Your task to perform on an android device: Go to ESPN.com Image 0: 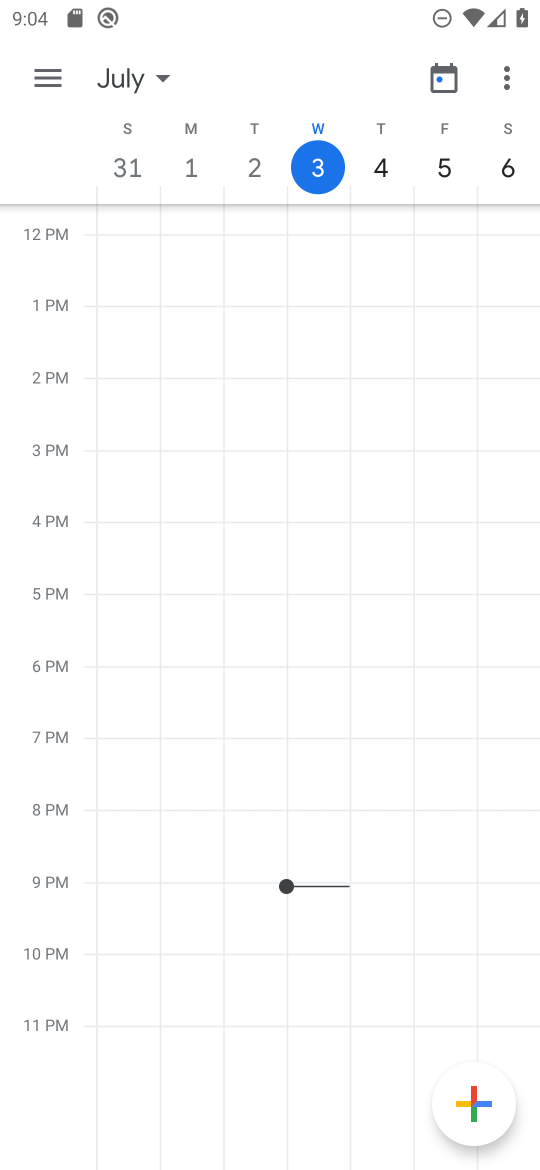
Step 0: press home button
Your task to perform on an android device: Go to ESPN.com Image 1: 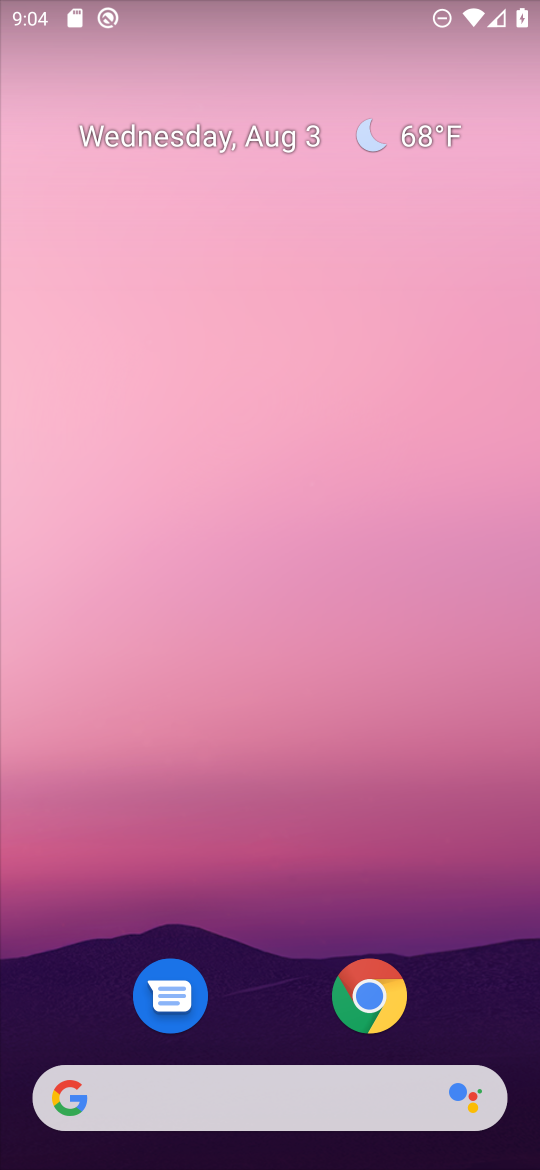
Step 1: click (295, 1098)
Your task to perform on an android device: Go to ESPN.com Image 2: 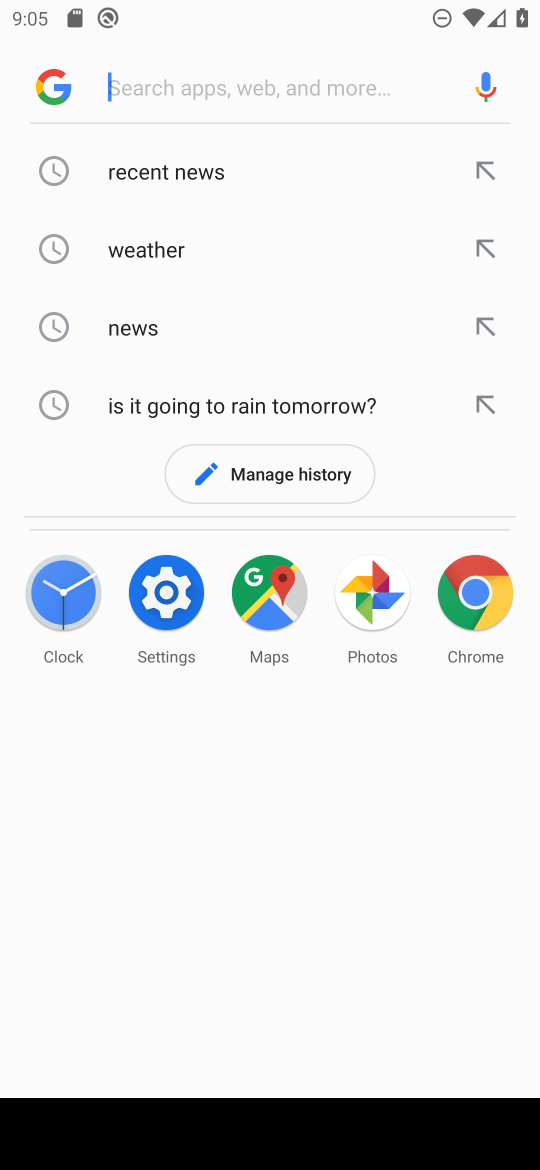
Step 2: type "espn.com"
Your task to perform on an android device: Go to ESPN.com Image 3: 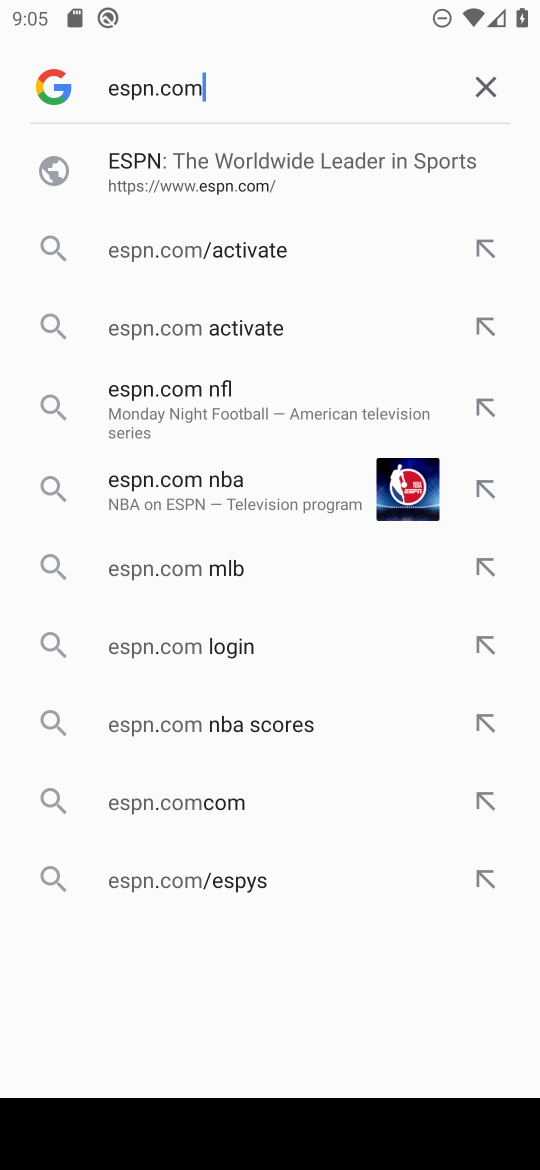
Step 3: click (319, 180)
Your task to perform on an android device: Go to ESPN.com Image 4: 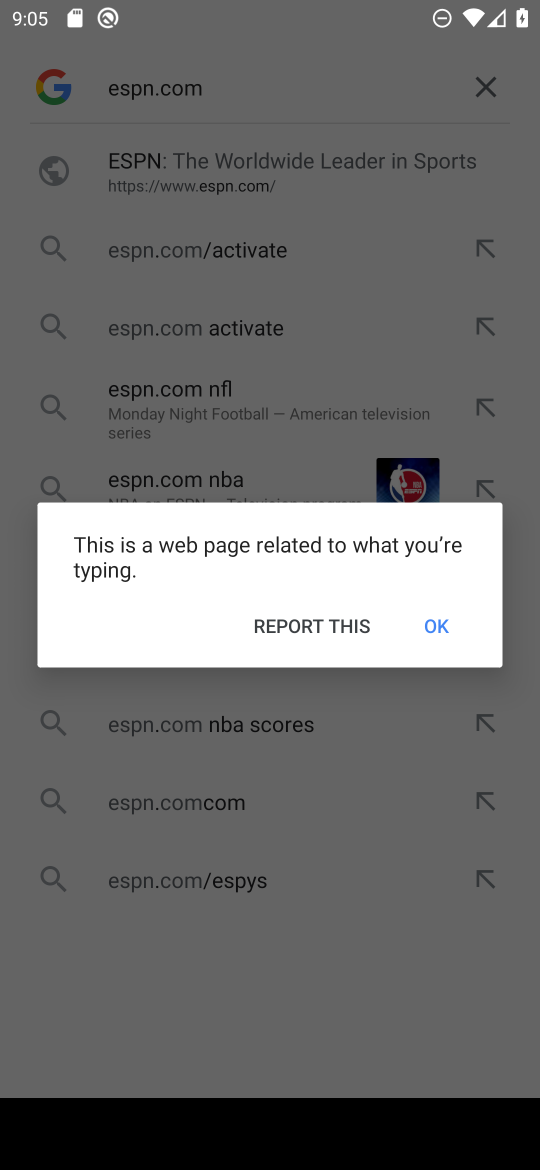
Step 4: click (443, 629)
Your task to perform on an android device: Go to ESPN.com Image 5: 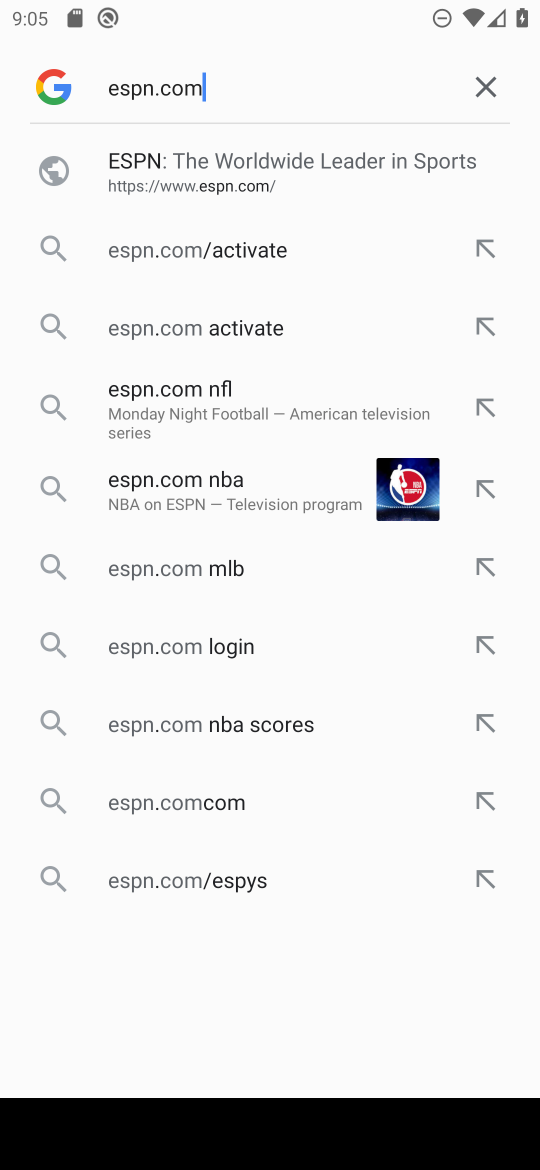
Step 5: click (330, 178)
Your task to perform on an android device: Go to ESPN.com Image 6: 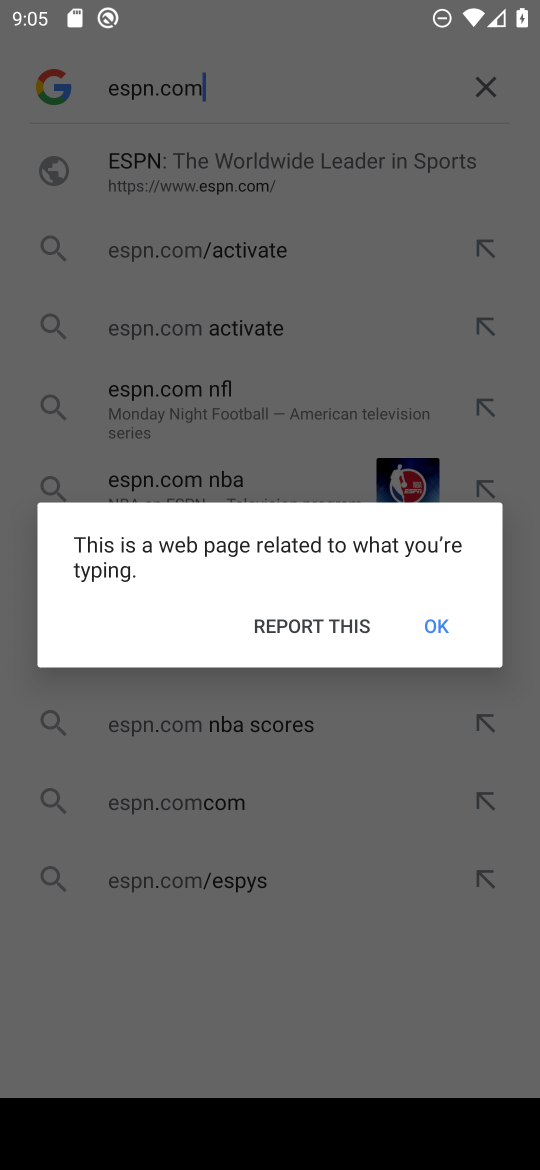
Step 6: click (436, 622)
Your task to perform on an android device: Go to ESPN.com Image 7: 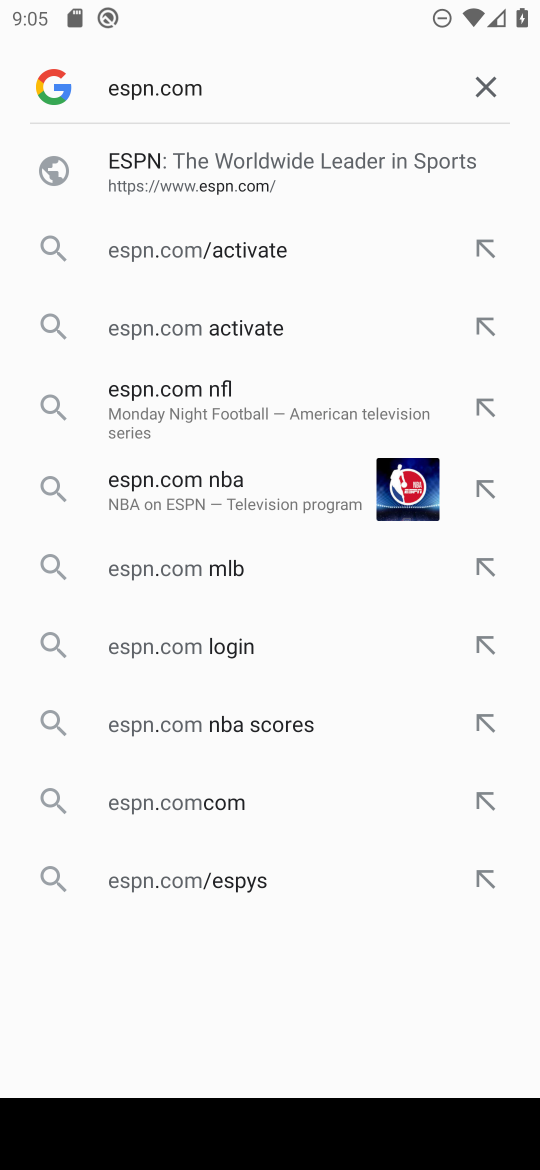
Step 7: click (50, 169)
Your task to perform on an android device: Go to ESPN.com Image 8: 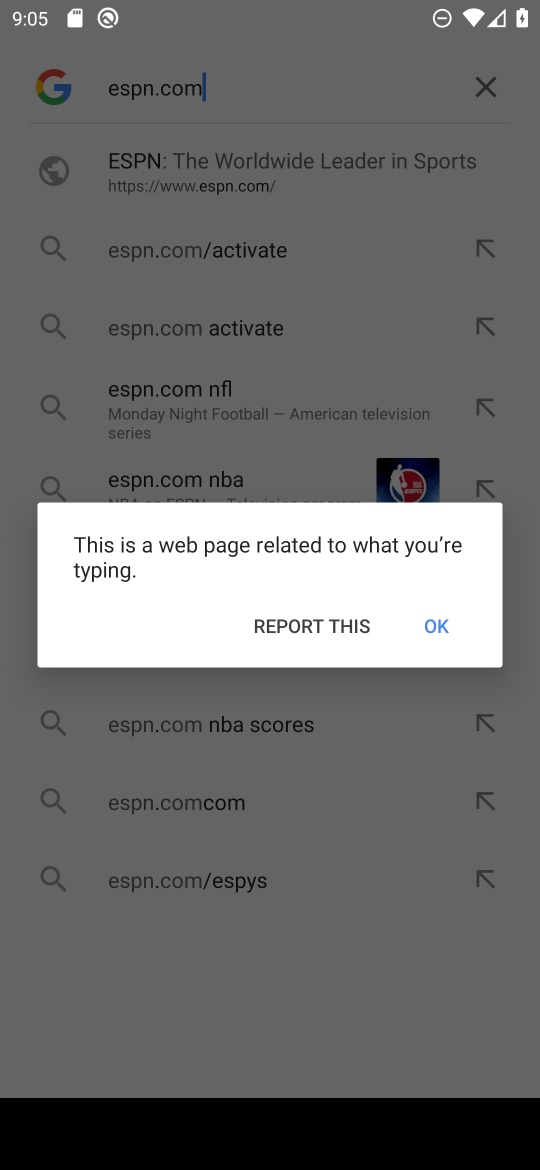
Step 8: click (438, 620)
Your task to perform on an android device: Go to ESPN.com Image 9: 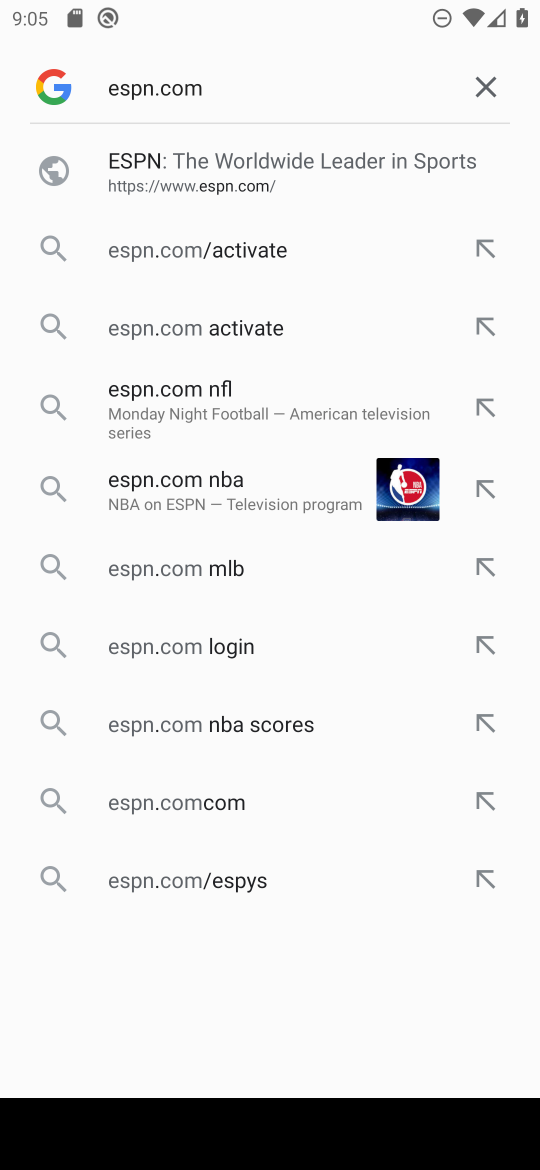
Step 9: click (291, 176)
Your task to perform on an android device: Go to ESPN.com Image 10: 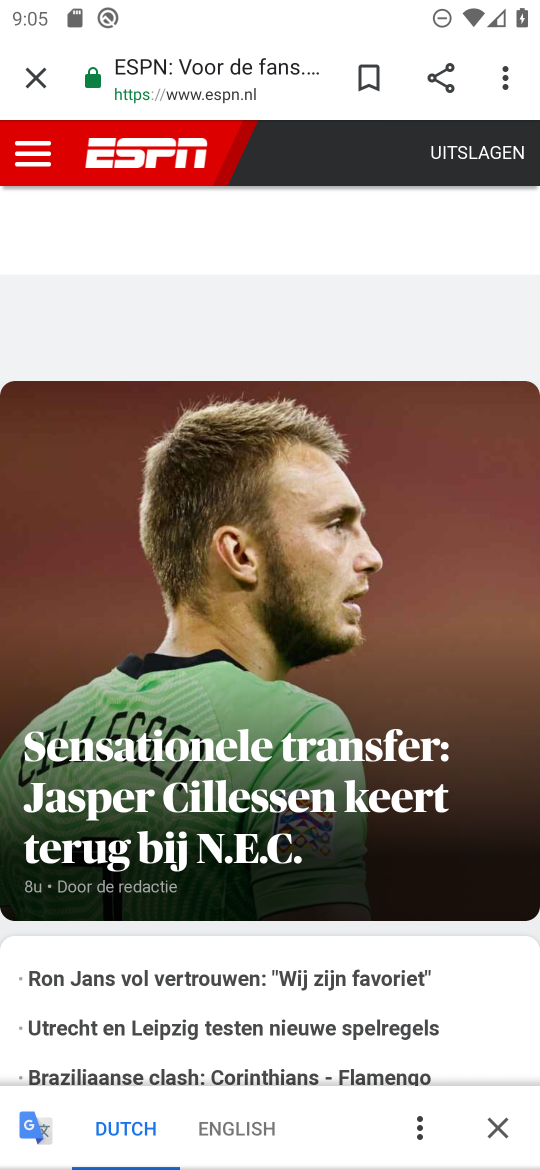
Step 10: task complete